Your task to perform on an android device: Open the map Image 0: 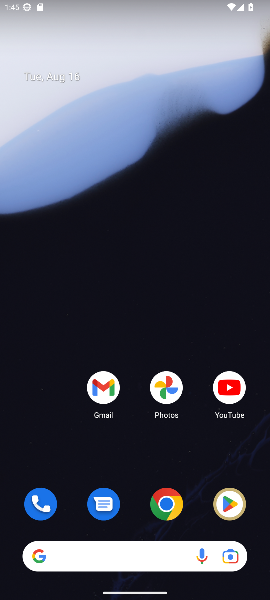
Step 0: drag from (134, 525) to (135, 100)
Your task to perform on an android device: Open the map Image 1: 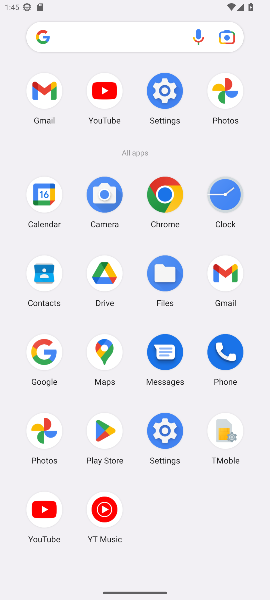
Step 1: click (105, 344)
Your task to perform on an android device: Open the map Image 2: 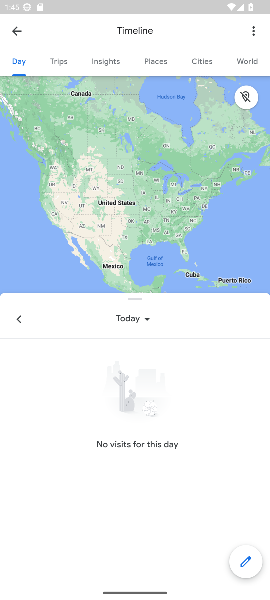
Step 2: click (14, 32)
Your task to perform on an android device: Open the map Image 3: 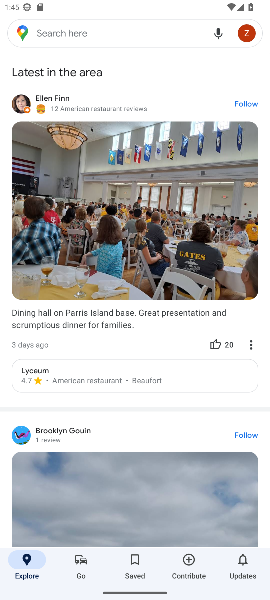
Step 3: task complete